Your task to perform on an android device: Open Maps and search for coffee Image 0: 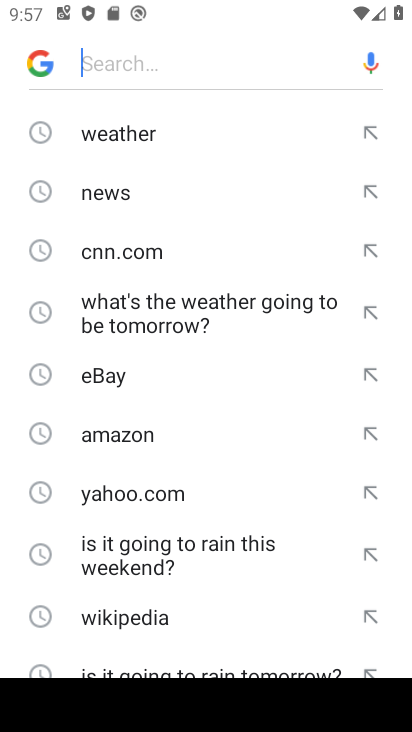
Step 0: press home button
Your task to perform on an android device: Open Maps and search for coffee Image 1: 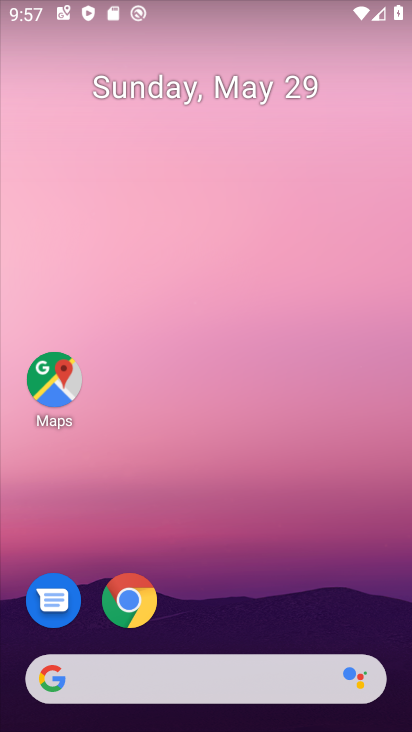
Step 1: drag from (211, 726) to (193, 108)
Your task to perform on an android device: Open Maps and search for coffee Image 2: 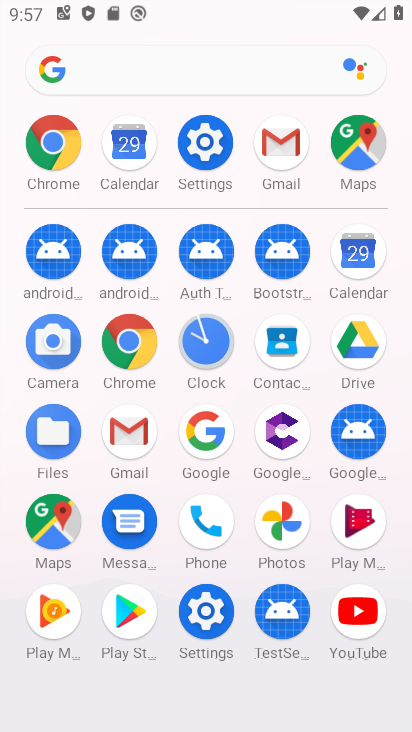
Step 2: click (61, 527)
Your task to perform on an android device: Open Maps and search for coffee Image 3: 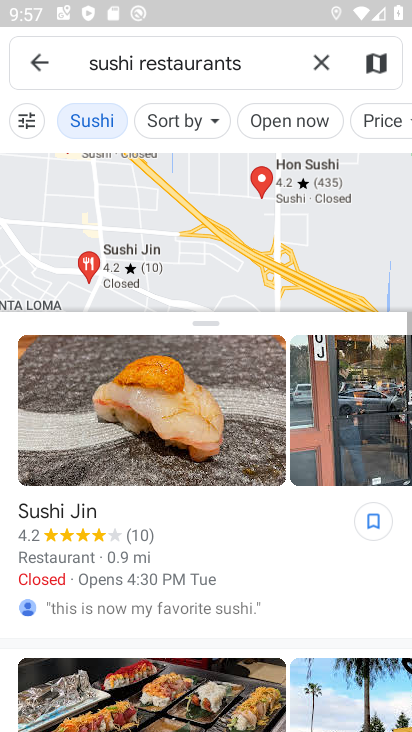
Step 3: click (317, 59)
Your task to perform on an android device: Open Maps and search for coffee Image 4: 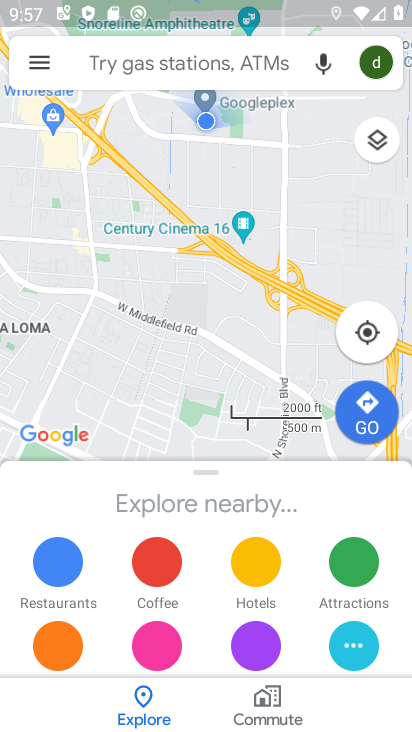
Step 4: click (150, 62)
Your task to perform on an android device: Open Maps and search for coffee Image 5: 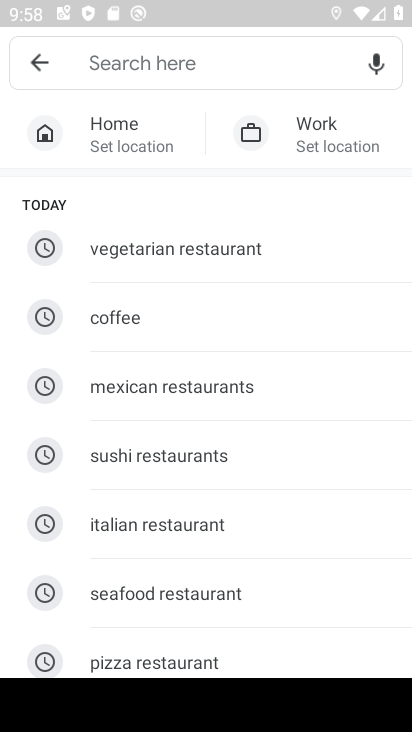
Step 5: type "coffee"
Your task to perform on an android device: Open Maps and search for coffee Image 6: 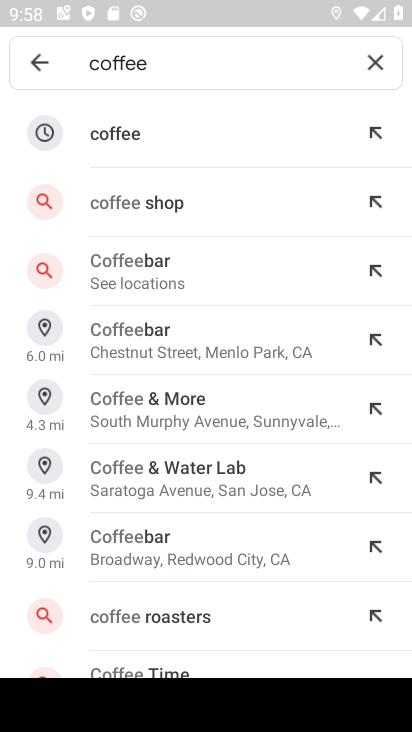
Step 6: click (120, 127)
Your task to perform on an android device: Open Maps and search for coffee Image 7: 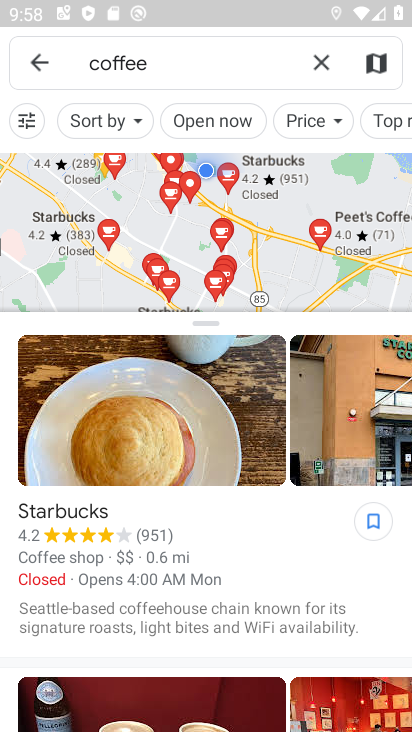
Step 7: task complete